Your task to perform on an android device: open device folders in google photos Image 0: 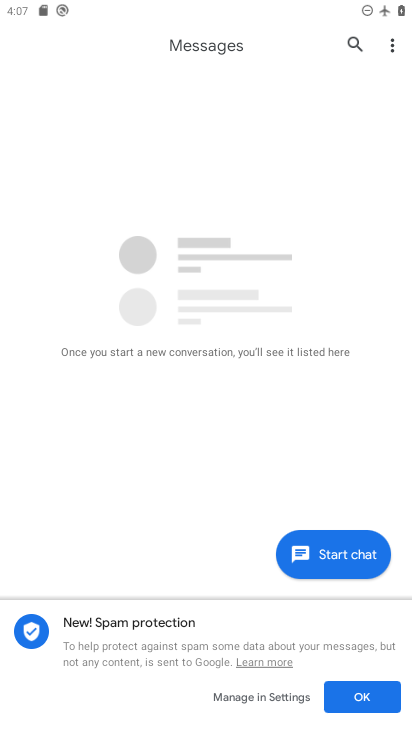
Step 0: press home button
Your task to perform on an android device: open device folders in google photos Image 1: 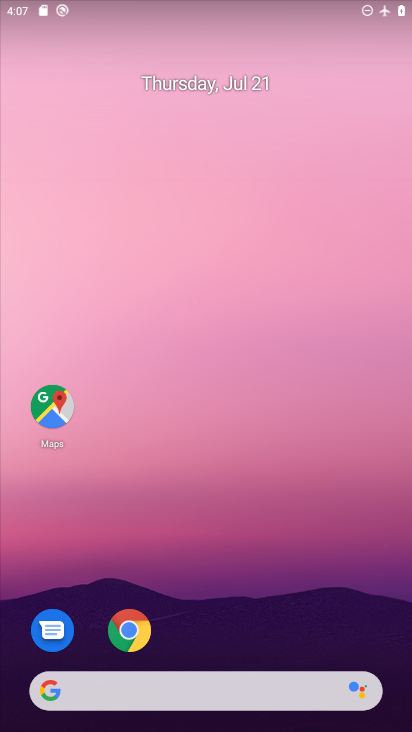
Step 1: drag from (167, 654) to (83, 13)
Your task to perform on an android device: open device folders in google photos Image 2: 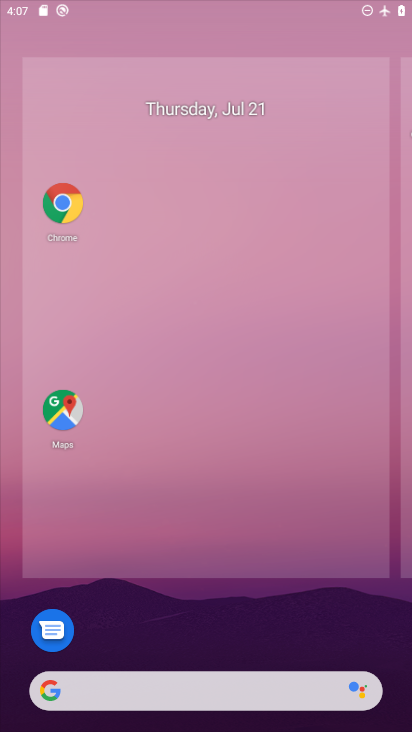
Step 2: drag from (156, 672) to (150, 78)
Your task to perform on an android device: open device folders in google photos Image 3: 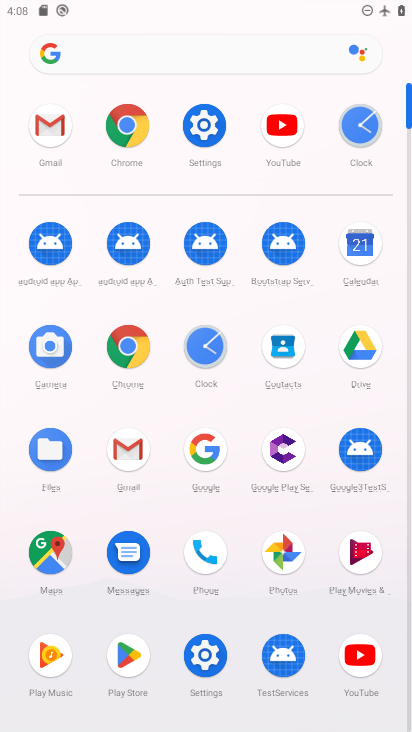
Step 3: click (283, 560)
Your task to perform on an android device: open device folders in google photos Image 4: 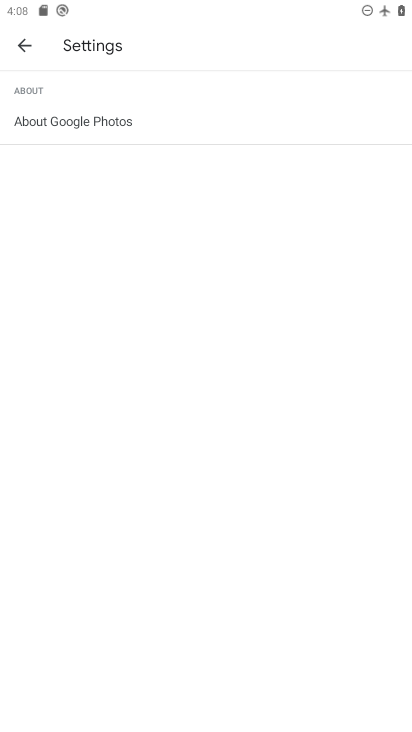
Step 4: click (16, 38)
Your task to perform on an android device: open device folders in google photos Image 5: 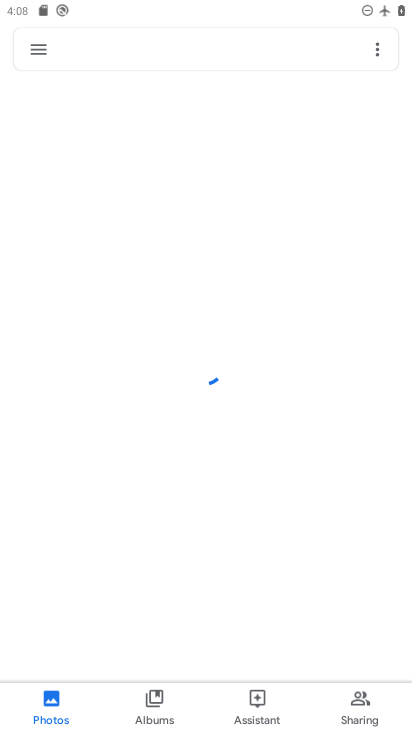
Step 5: click (36, 57)
Your task to perform on an android device: open device folders in google photos Image 6: 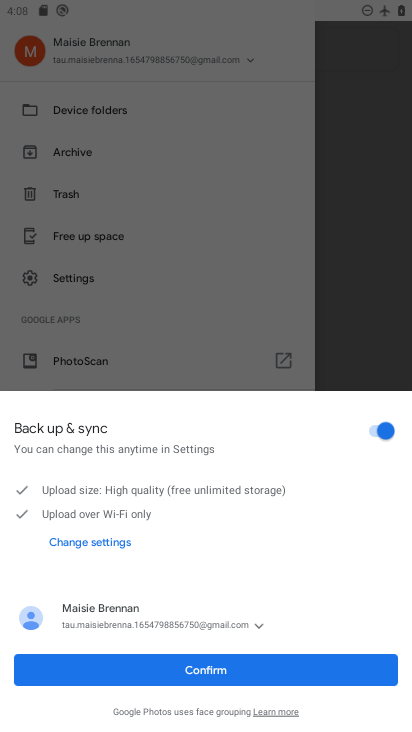
Step 6: click (275, 686)
Your task to perform on an android device: open device folders in google photos Image 7: 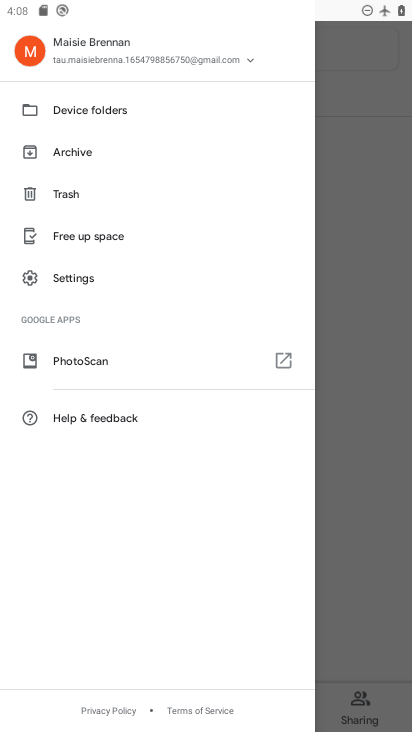
Step 7: click (107, 96)
Your task to perform on an android device: open device folders in google photos Image 8: 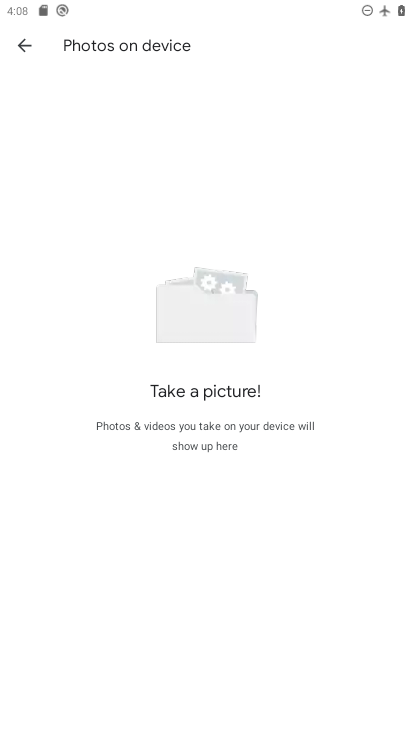
Step 8: task complete